Your task to perform on an android device: Open Chrome and go to the settings page Image 0: 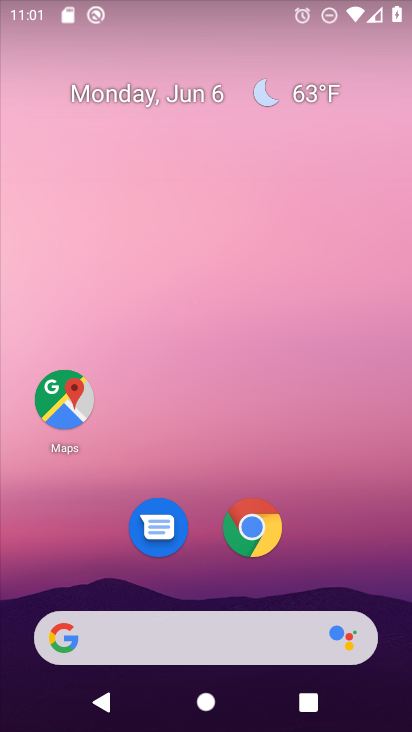
Step 0: drag from (377, 559) to (407, 238)
Your task to perform on an android device: Open Chrome and go to the settings page Image 1: 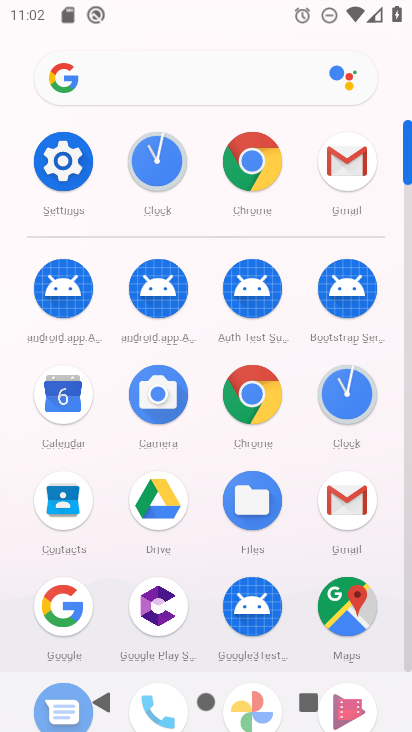
Step 1: drag from (290, 328) to (296, 154)
Your task to perform on an android device: Open Chrome and go to the settings page Image 2: 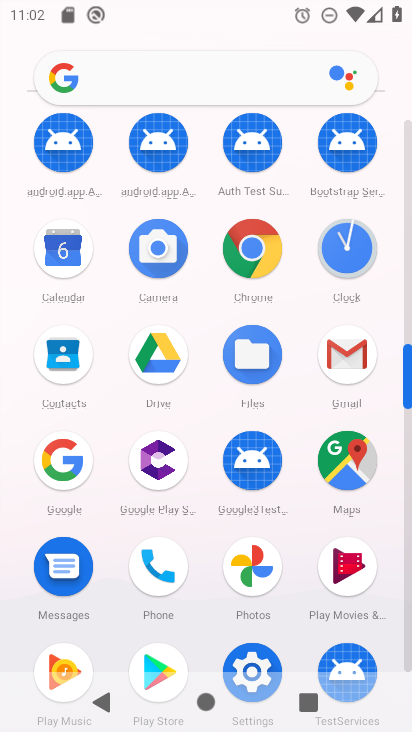
Step 2: click (253, 255)
Your task to perform on an android device: Open Chrome and go to the settings page Image 3: 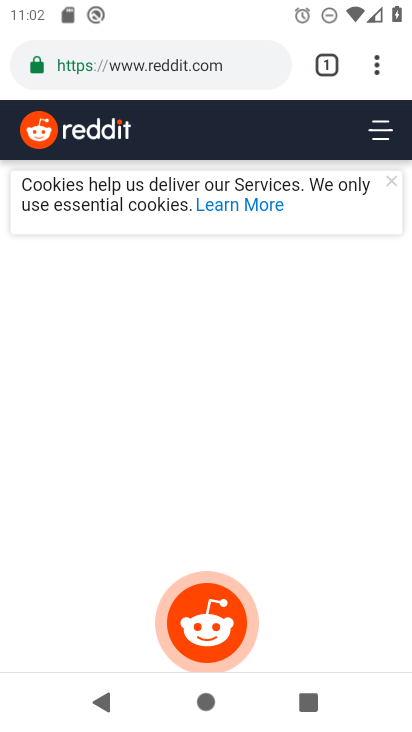
Step 3: click (379, 74)
Your task to perform on an android device: Open Chrome and go to the settings page Image 4: 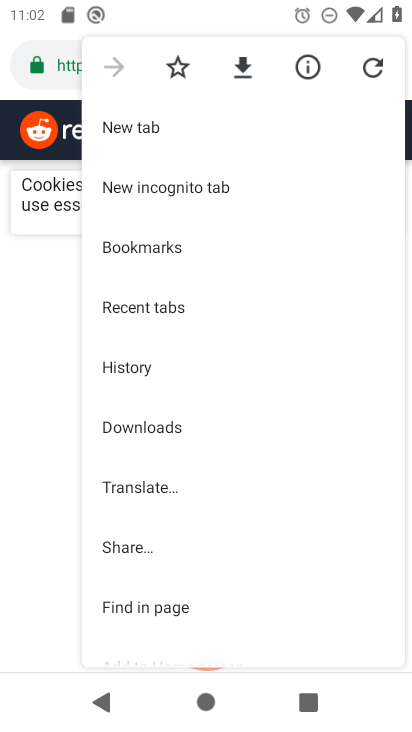
Step 4: drag from (316, 426) to (340, 270)
Your task to perform on an android device: Open Chrome and go to the settings page Image 5: 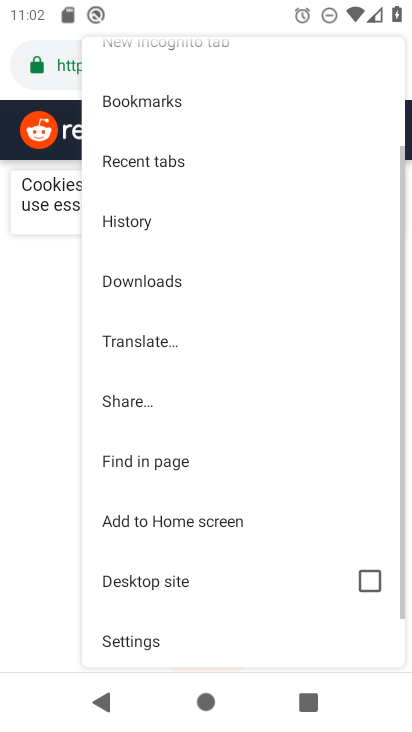
Step 5: drag from (319, 479) to (296, 330)
Your task to perform on an android device: Open Chrome and go to the settings page Image 6: 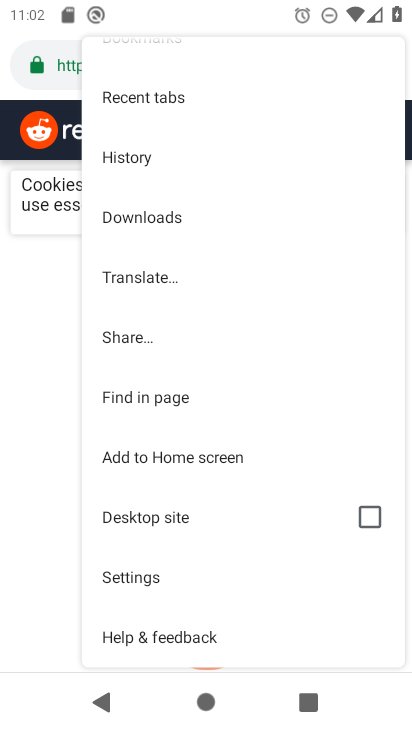
Step 6: click (148, 584)
Your task to perform on an android device: Open Chrome and go to the settings page Image 7: 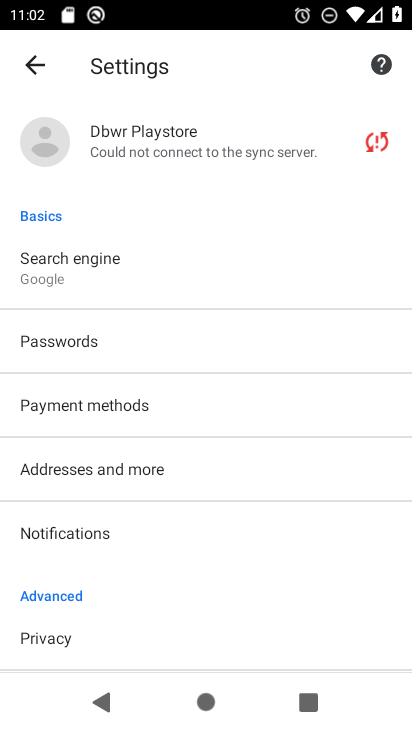
Step 7: task complete